Your task to perform on an android device: Open the map Image 0: 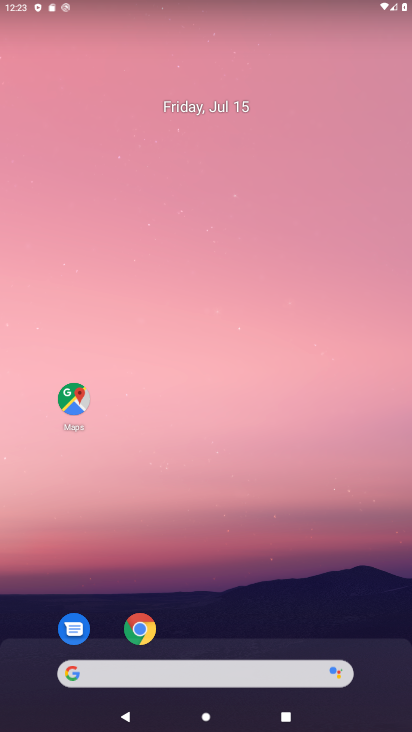
Step 0: click (82, 413)
Your task to perform on an android device: Open the map Image 1: 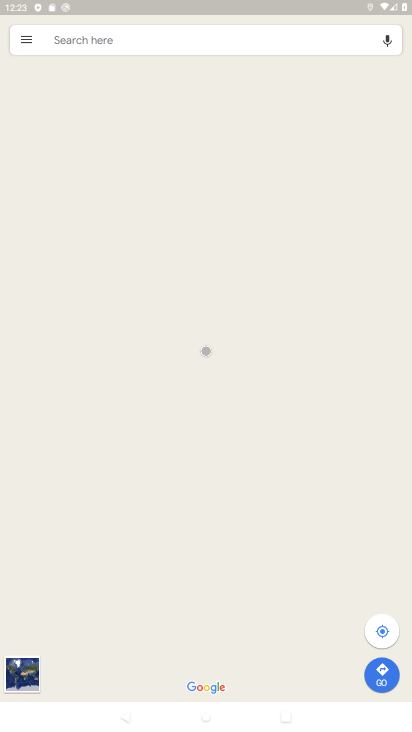
Step 1: task complete